Your task to perform on an android device: Open Reddit.com Image 0: 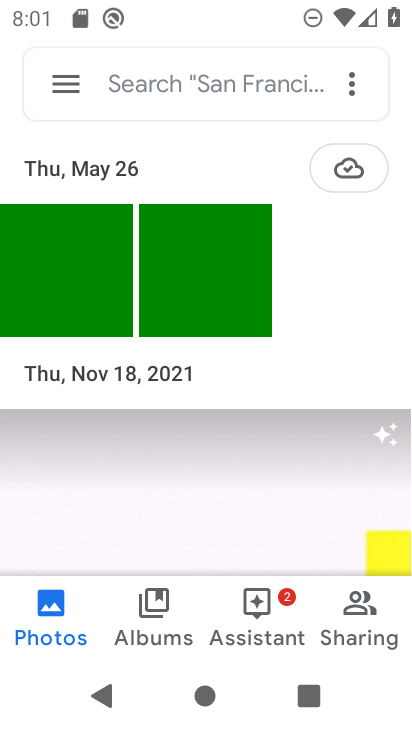
Step 0: press home button
Your task to perform on an android device: Open Reddit.com Image 1: 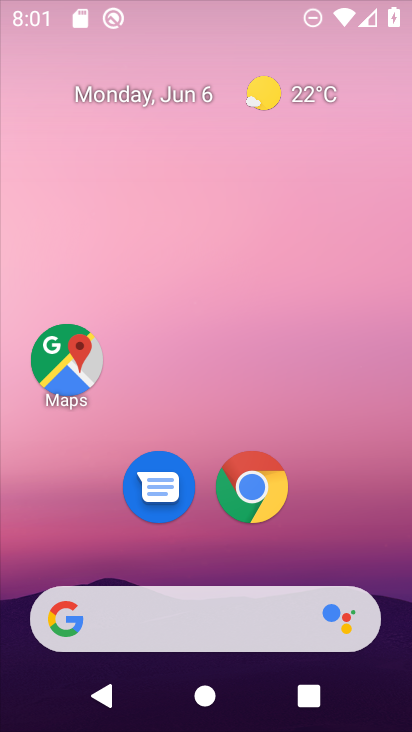
Step 1: drag from (409, 612) to (350, 34)
Your task to perform on an android device: Open Reddit.com Image 2: 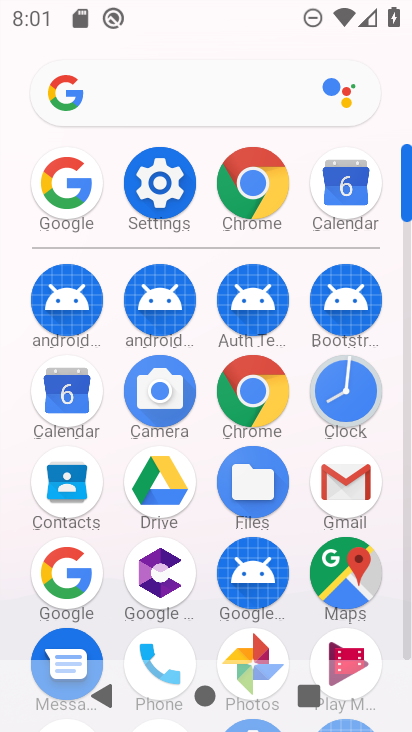
Step 2: click (43, 589)
Your task to perform on an android device: Open Reddit.com Image 3: 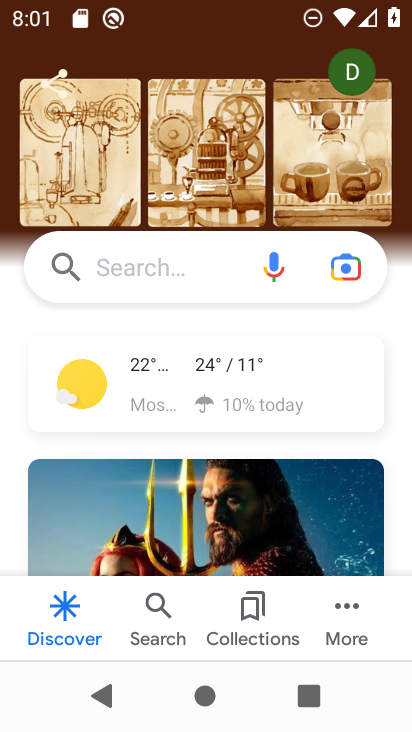
Step 3: click (158, 274)
Your task to perform on an android device: Open Reddit.com Image 4: 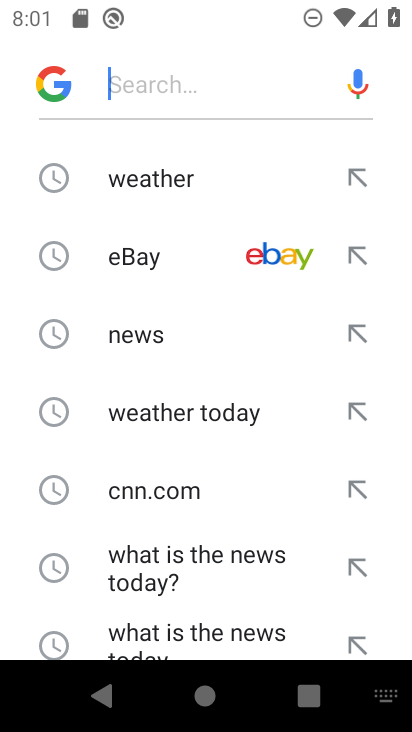
Step 4: drag from (140, 614) to (211, 147)
Your task to perform on an android device: Open Reddit.com Image 5: 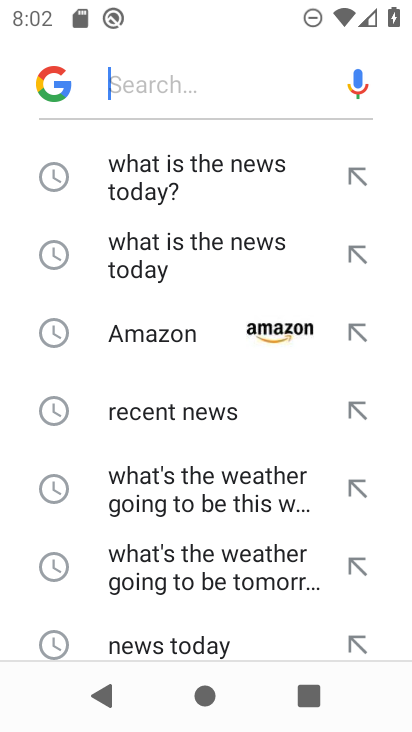
Step 5: drag from (158, 546) to (191, 178)
Your task to perform on an android device: Open Reddit.com Image 6: 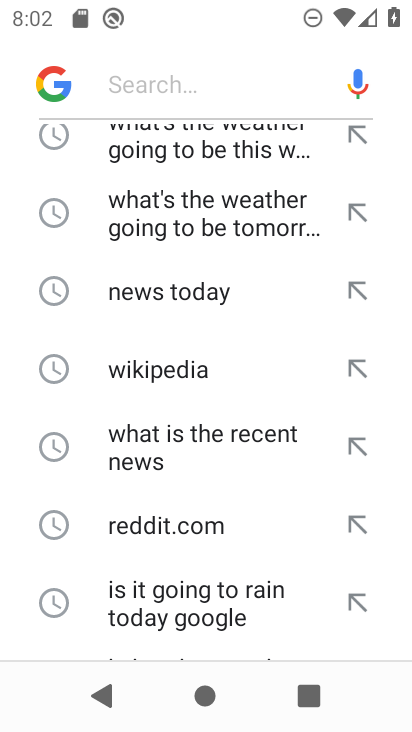
Step 6: click (187, 533)
Your task to perform on an android device: Open Reddit.com Image 7: 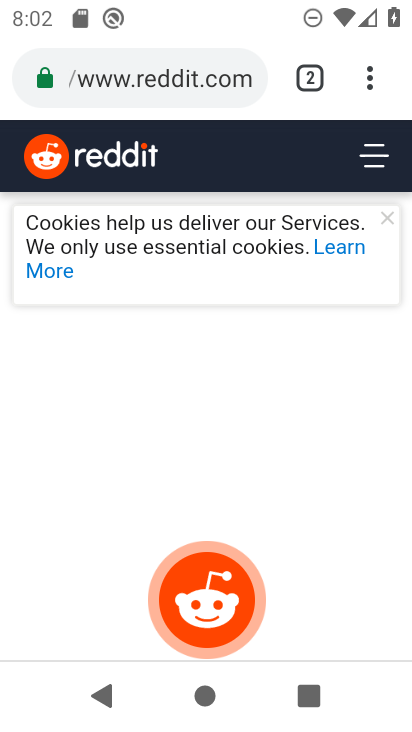
Step 7: task complete